Your task to perform on an android device: Open sound settings Image 0: 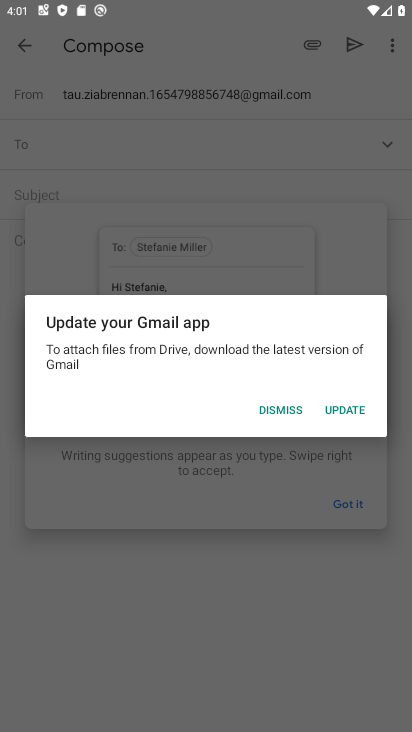
Step 0: press home button
Your task to perform on an android device: Open sound settings Image 1: 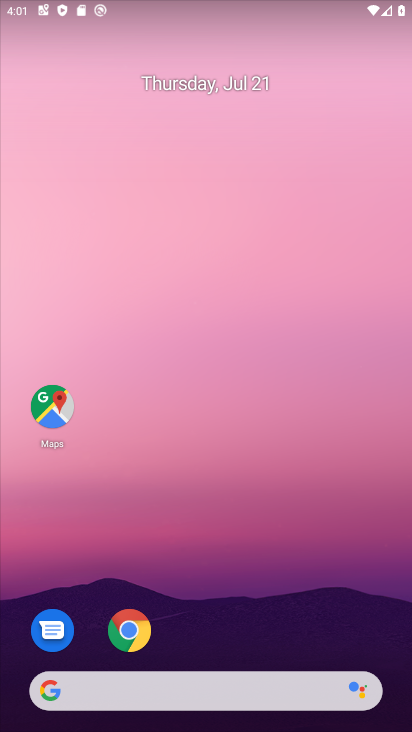
Step 1: drag from (199, 685) to (260, 350)
Your task to perform on an android device: Open sound settings Image 2: 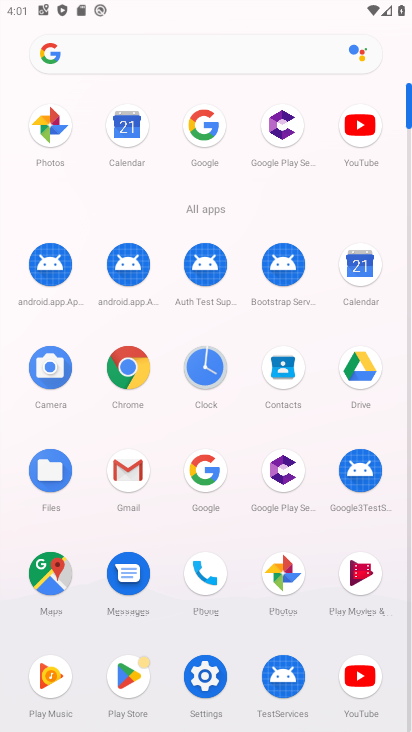
Step 2: click (207, 678)
Your task to perform on an android device: Open sound settings Image 3: 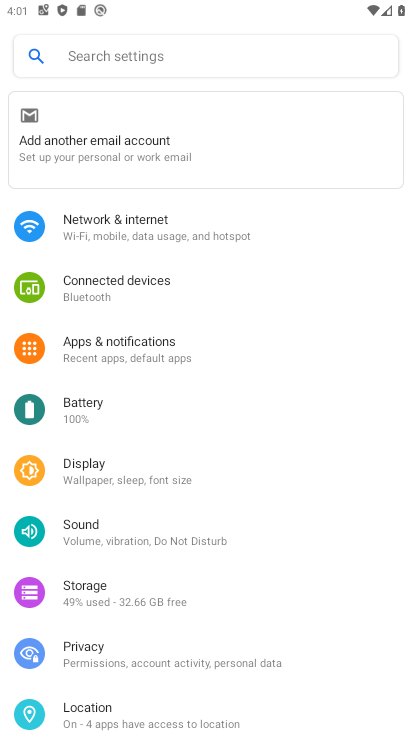
Step 3: click (90, 529)
Your task to perform on an android device: Open sound settings Image 4: 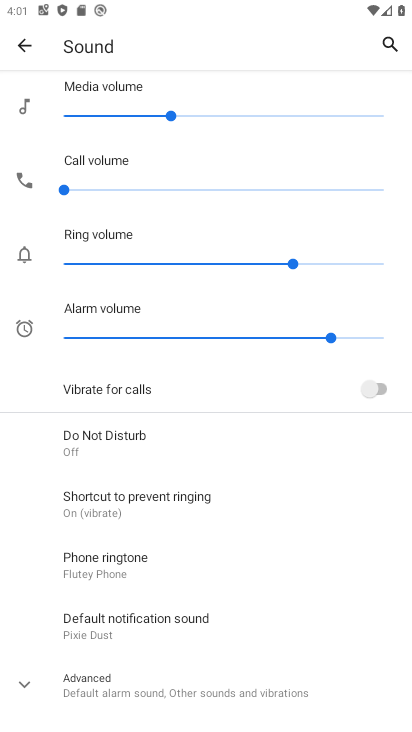
Step 4: task complete